Your task to perform on an android device: Open Youtube and go to "Your channel" Image 0: 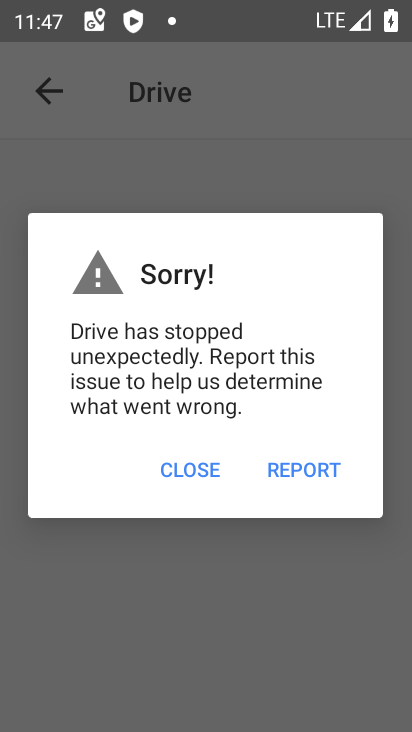
Step 0: press home button
Your task to perform on an android device: Open Youtube and go to "Your channel" Image 1: 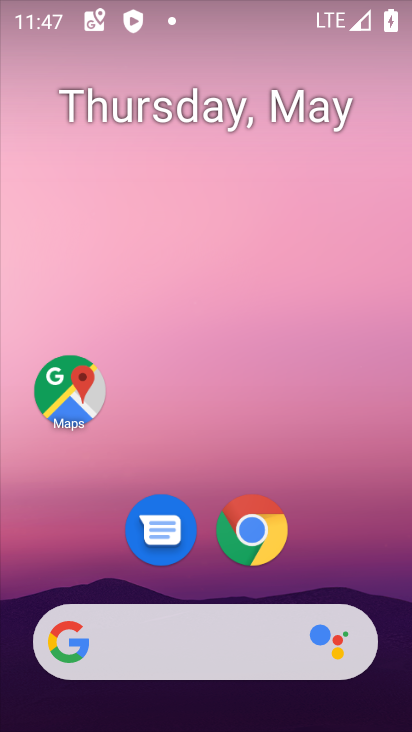
Step 1: drag from (221, 705) to (372, 36)
Your task to perform on an android device: Open Youtube and go to "Your channel" Image 2: 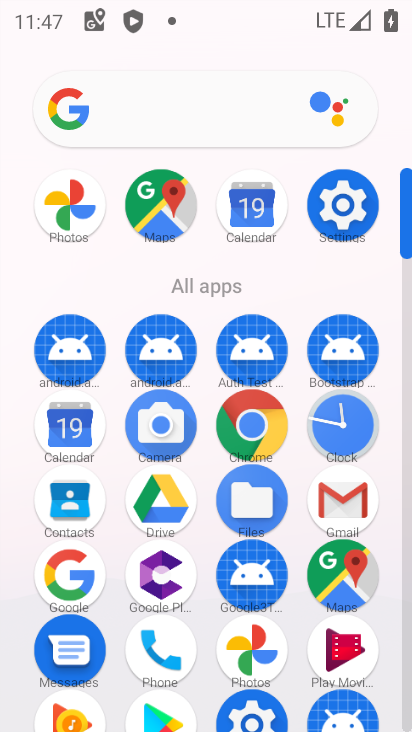
Step 2: drag from (324, 644) to (238, 143)
Your task to perform on an android device: Open Youtube and go to "Your channel" Image 3: 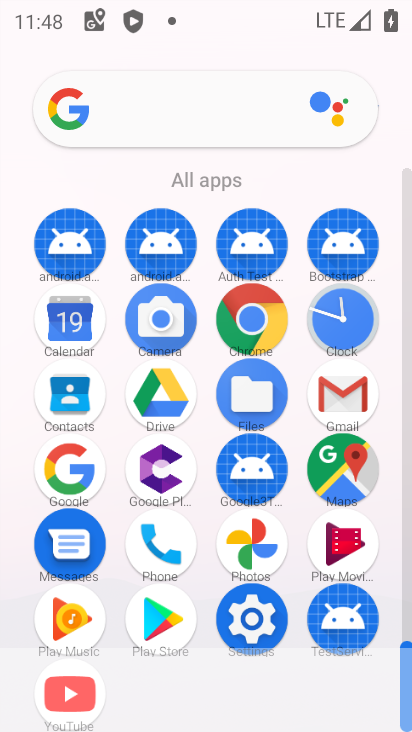
Step 3: drag from (180, 525) to (70, 11)
Your task to perform on an android device: Open Youtube and go to "Your channel" Image 4: 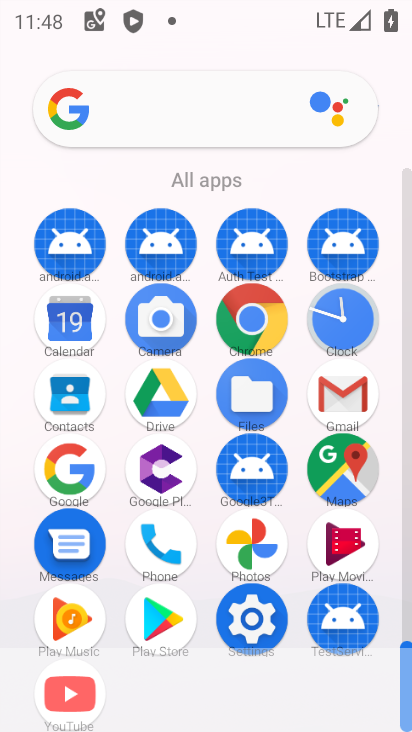
Step 4: click (85, 690)
Your task to perform on an android device: Open Youtube and go to "Your channel" Image 5: 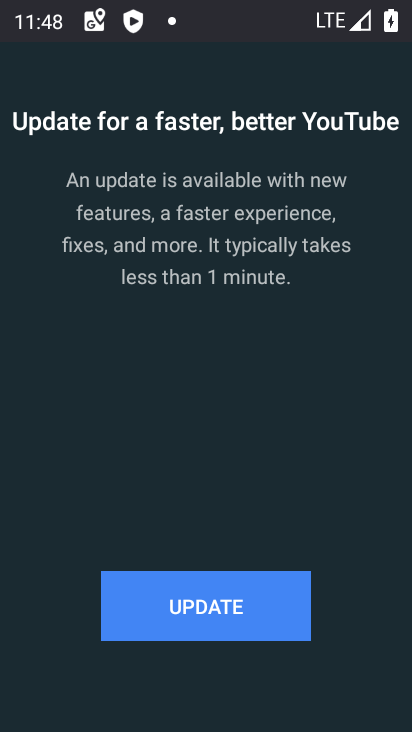
Step 5: click (251, 607)
Your task to perform on an android device: Open Youtube and go to "Your channel" Image 6: 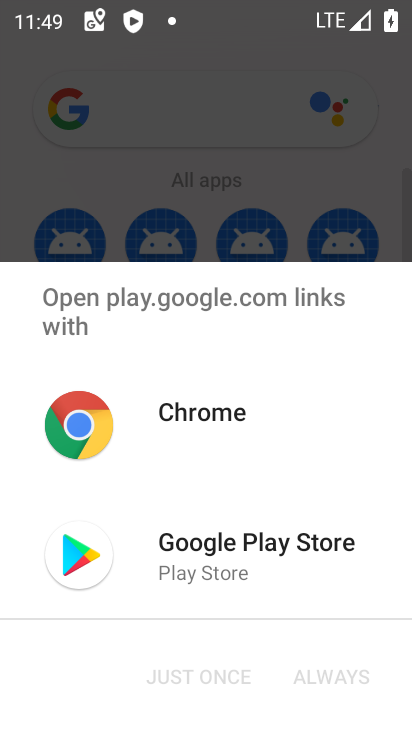
Step 6: click (206, 406)
Your task to perform on an android device: Open Youtube and go to "Your channel" Image 7: 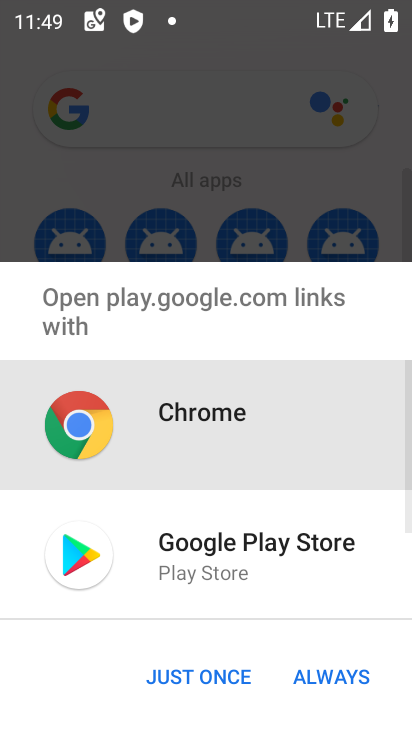
Step 7: click (368, 675)
Your task to perform on an android device: Open Youtube and go to "Your channel" Image 8: 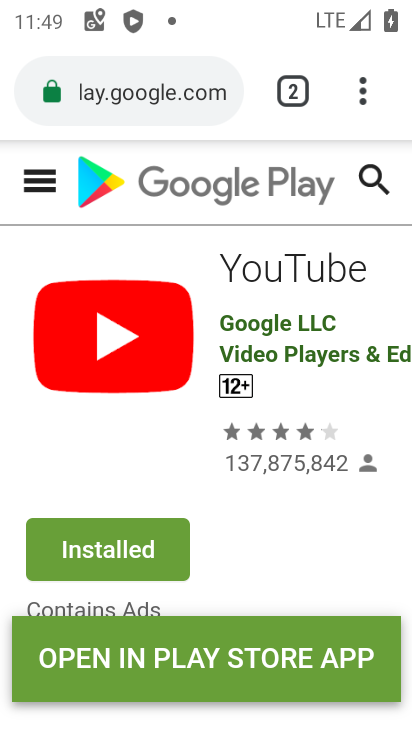
Step 8: click (161, 656)
Your task to perform on an android device: Open Youtube and go to "Your channel" Image 9: 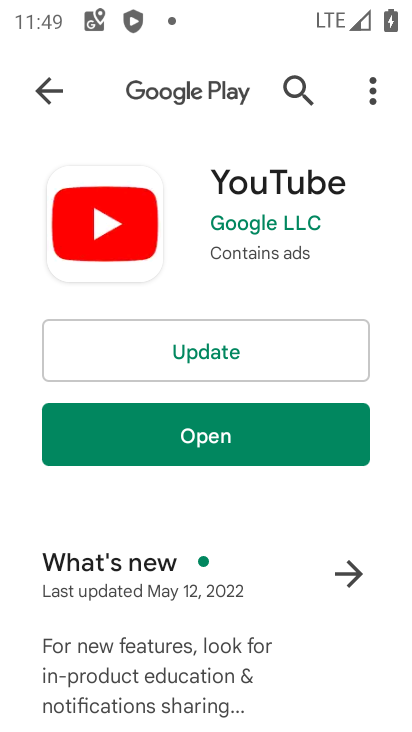
Step 9: task complete